Your task to perform on an android device: What's the weather going to be this weekend? Image 0: 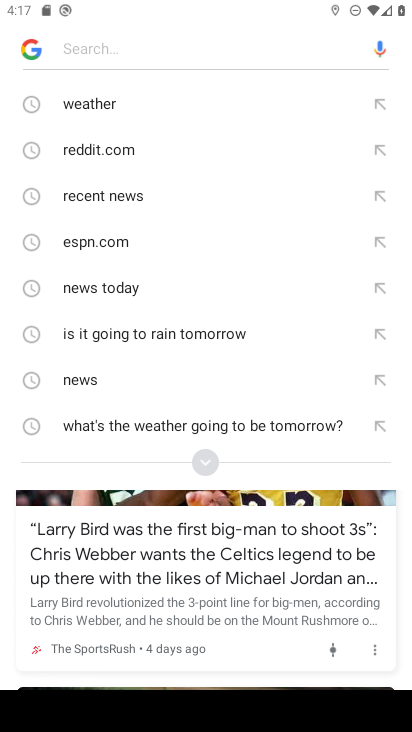
Step 0: press home button
Your task to perform on an android device: What's the weather going to be this weekend? Image 1: 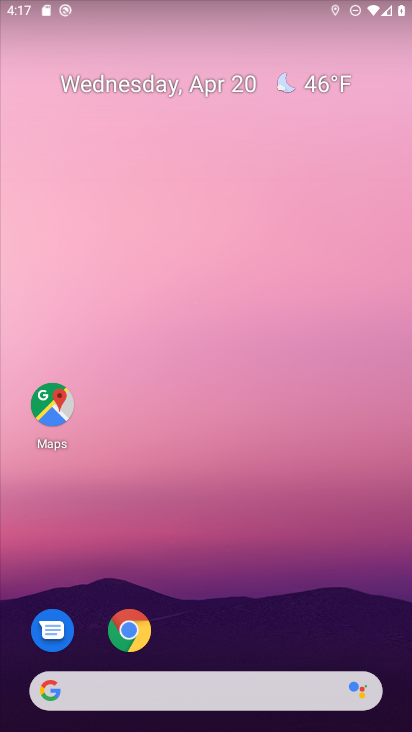
Step 1: drag from (288, 644) to (231, 12)
Your task to perform on an android device: What's the weather going to be this weekend? Image 2: 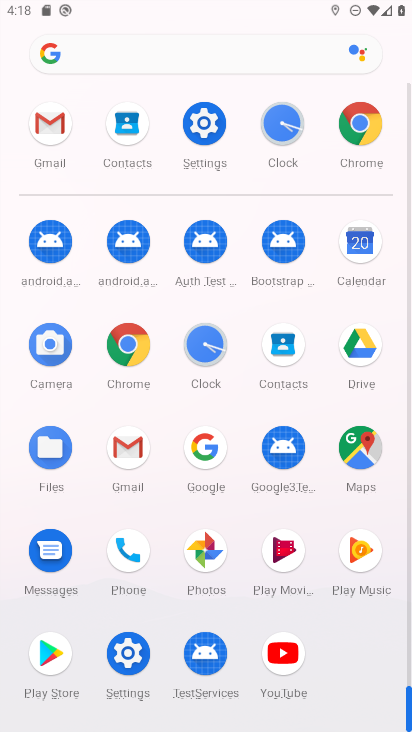
Step 2: click (136, 346)
Your task to perform on an android device: What's the weather going to be this weekend? Image 3: 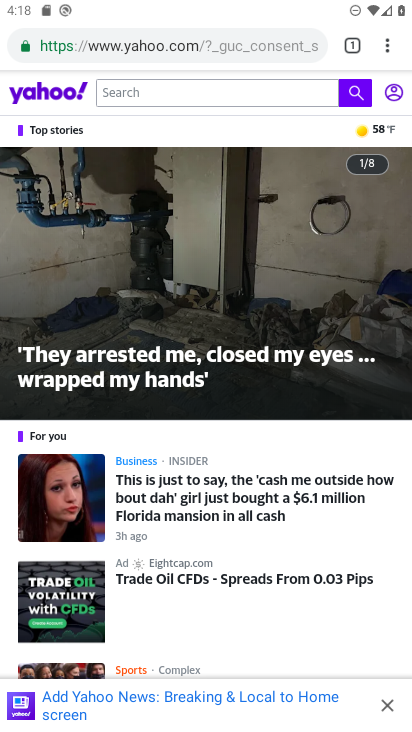
Step 3: click (291, 47)
Your task to perform on an android device: What's the weather going to be this weekend? Image 4: 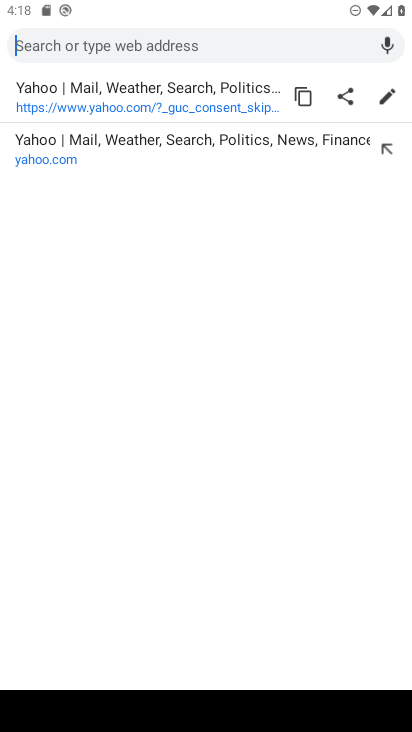
Step 4: type "weather on this weekend"
Your task to perform on an android device: What's the weather going to be this weekend? Image 5: 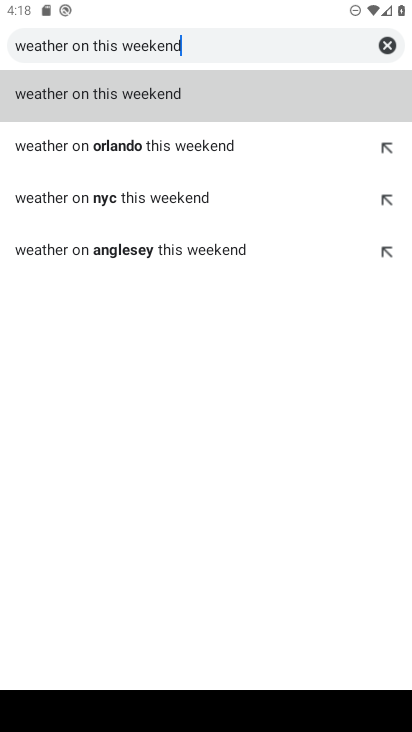
Step 5: click (30, 114)
Your task to perform on an android device: What's the weather going to be this weekend? Image 6: 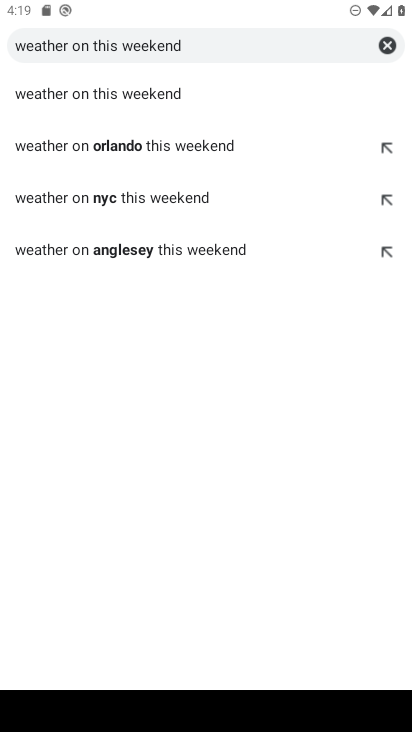
Step 6: click (62, 102)
Your task to perform on an android device: What's the weather going to be this weekend? Image 7: 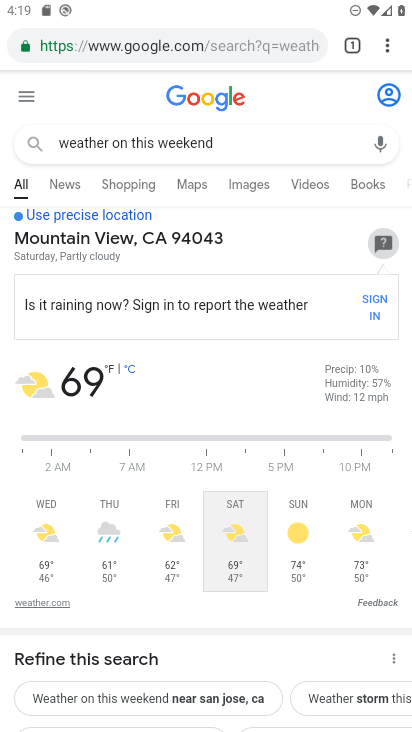
Step 7: task complete